Your task to perform on an android device: add a contact Image 0: 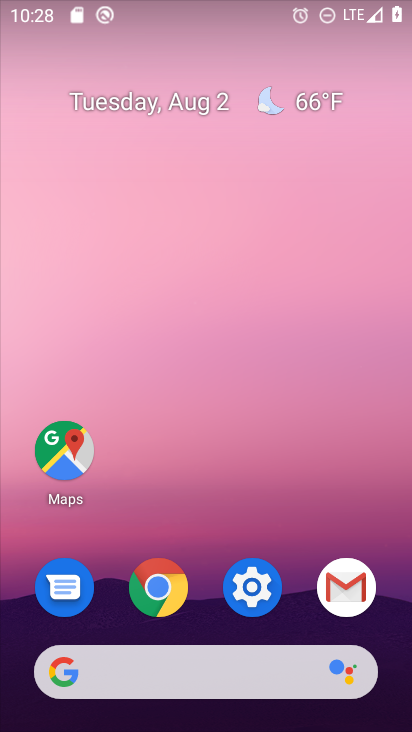
Step 0: press home button
Your task to perform on an android device: add a contact Image 1: 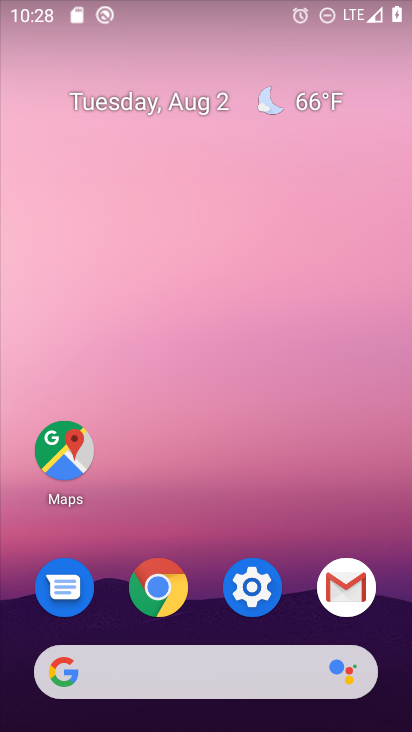
Step 1: drag from (284, 697) to (359, 169)
Your task to perform on an android device: add a contact Image 2: 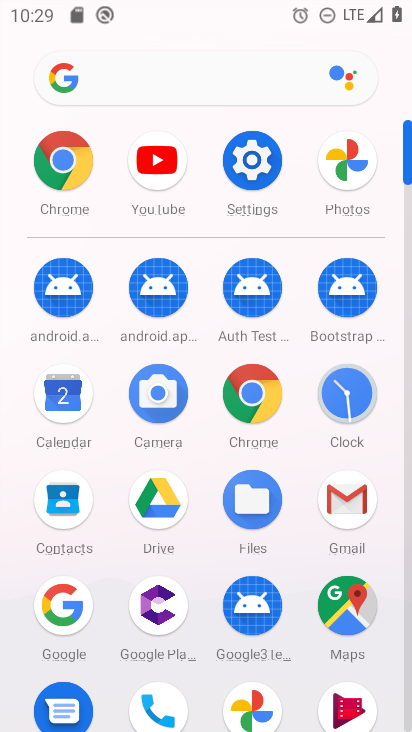
Step 2: click (160, 703)
Your task to perform on an android device: add a contact Image 3: 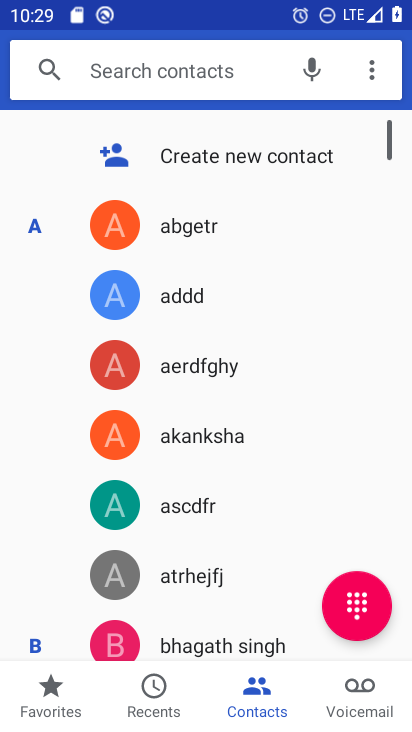
Step 3: click (185, 160)
Your task to perform on an android device: add a contact Image 4: 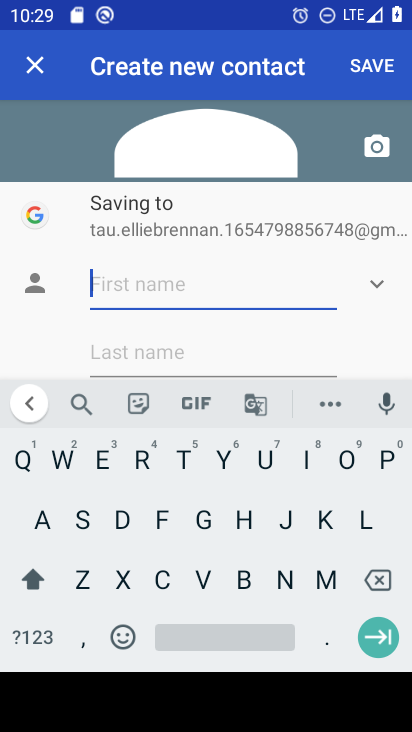
Step 4: click (191, 494)
Your task to perform on an android device: add a contact Image 5: 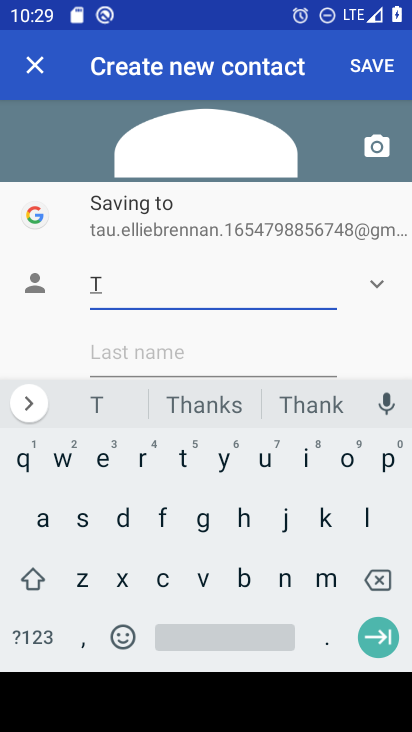
Step 5: click (73, 521)
Your task to perform on an android device: add a contact Image 6: 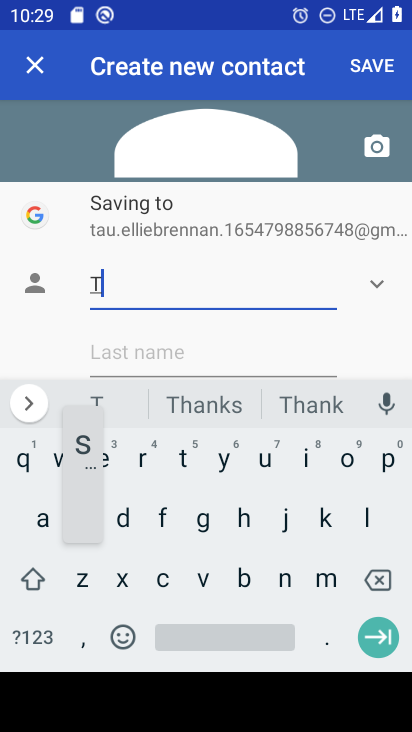
Step 6: click (128, 512)
Your task to perform on an android device: add a contact Image 7: 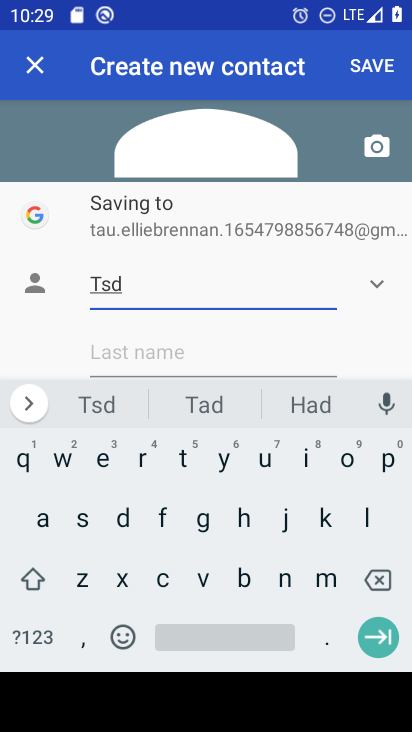
Step 7: drag from (175, 347) to (200, 246)
Your task to perform on an android device: add a contact Image 8: 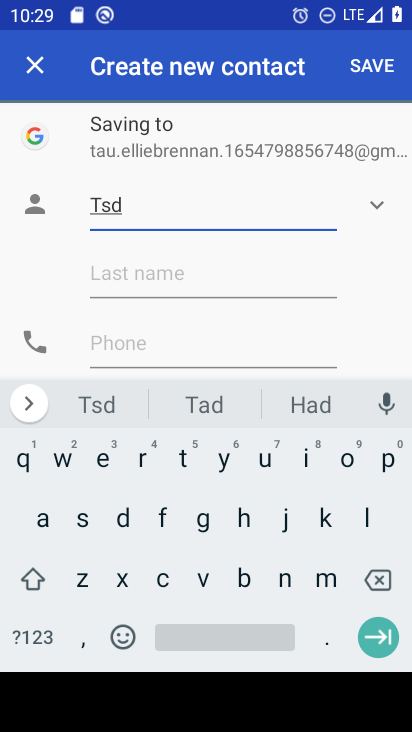
Step 8: click (149, 339)
Your task to perform on an android device: add a contact Image 9: 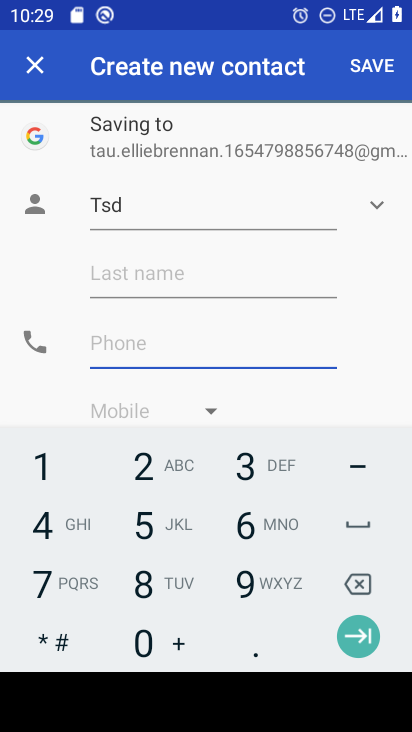
Step 9: click (155, 526)
Your task to perform on an android device: add a contact Image 10: 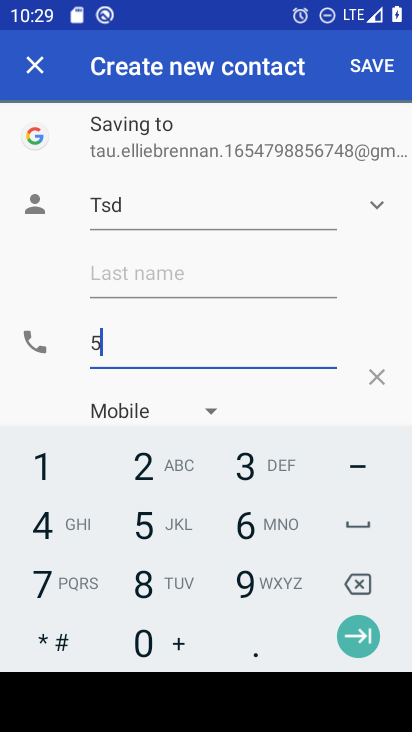
Step 10: click (206, 518)
Your task to perform on an android device: add a contact Image 11: 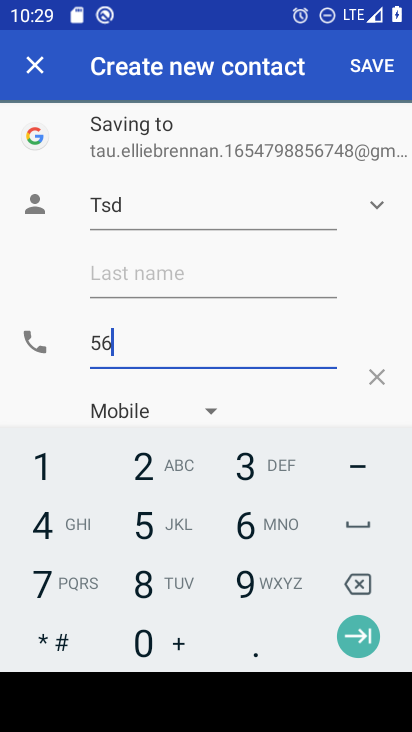
Step 11: click (142, 578)
Your task to perform on an android device: add a contact Image 12: 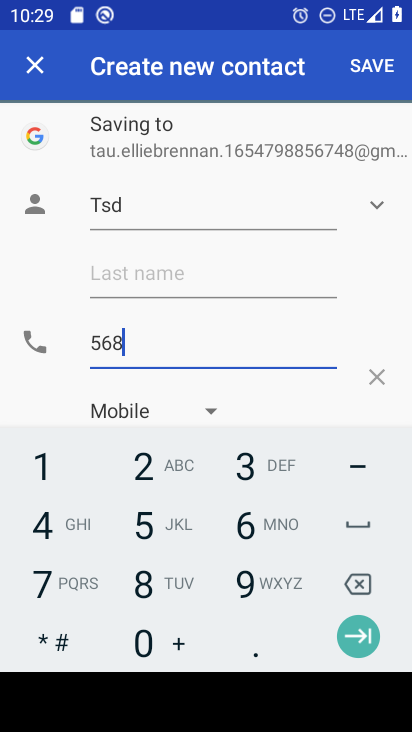
Step 12: click (57, 452)
Your task to perform on an android device: add a contact Image 13: 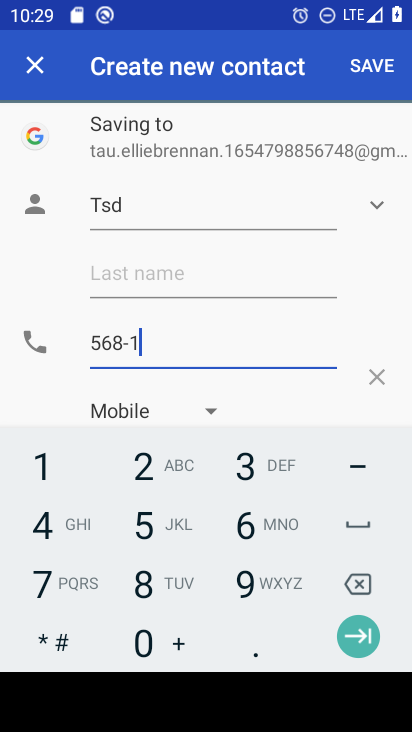
Step 13: click (45, 522)
Your task to perform on an android device: add a contact Image 14: 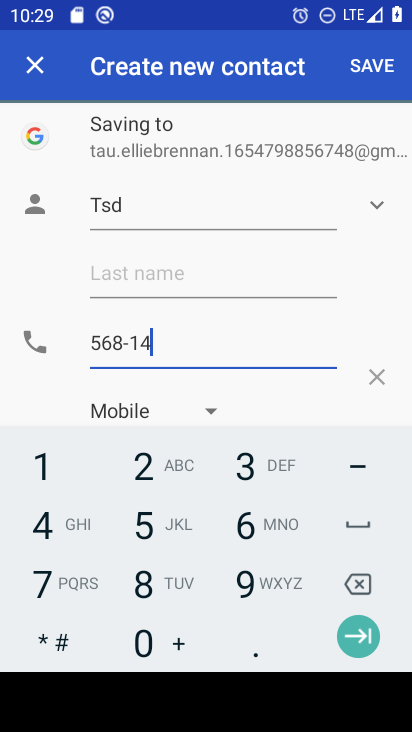
Step 14: click (142, 572)
Your task to perform on an android device: add a contact Image 15: 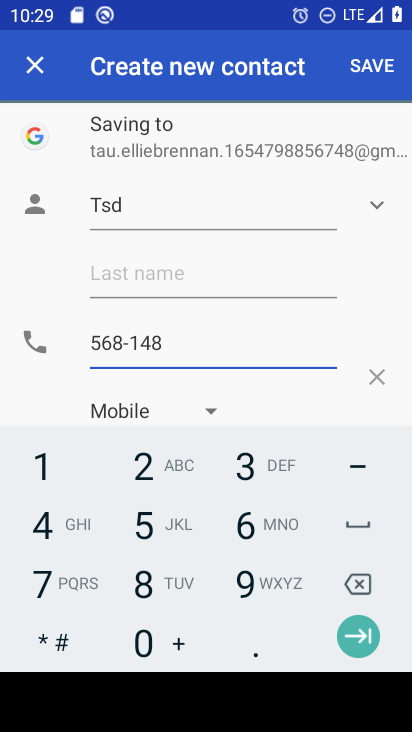
Step 15: click (371, 71)
Your task to perform on an android device: add a contact Image 16: 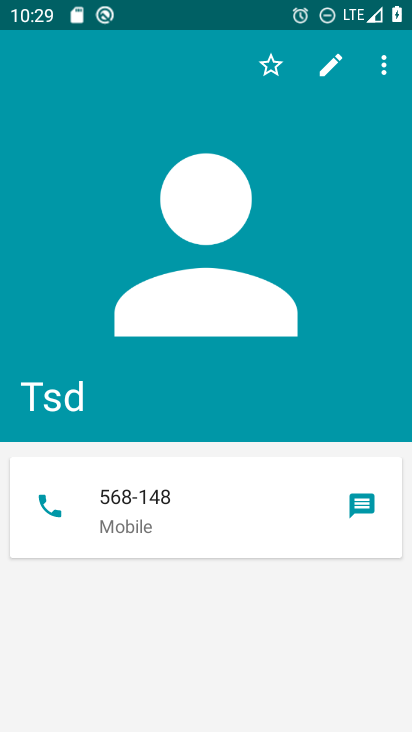
Step 16: task complete